Your task to perform on an android device: remove spam from my inbox in the gmail app Image 0: 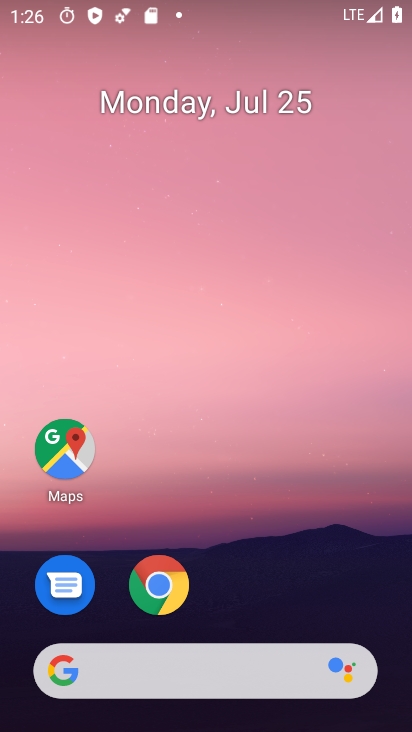
Step 0: drag from (205, 652) to (296, 6)
Your task to perform on an android device: remove spam from my inbox in the gmail app Image 1: 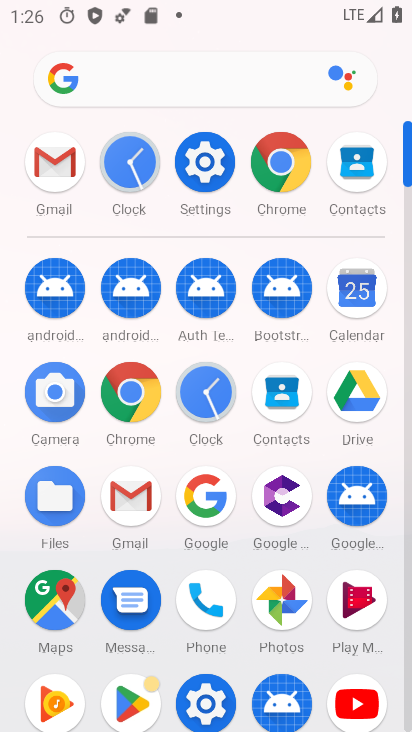
Step 1: click (149, 524)
Your task to perform on an android device: remove spam from my inbox in the gmail app Image 2: 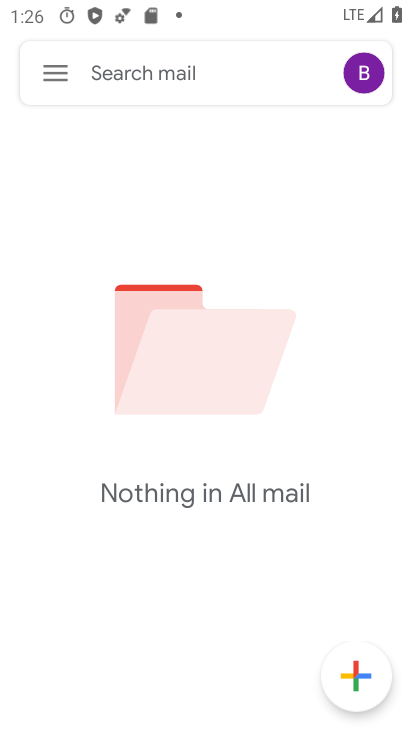
Step 2: click (59, 74)
Your task to perform on an android device: remove spam from my inbox in the gmail app Image 3: 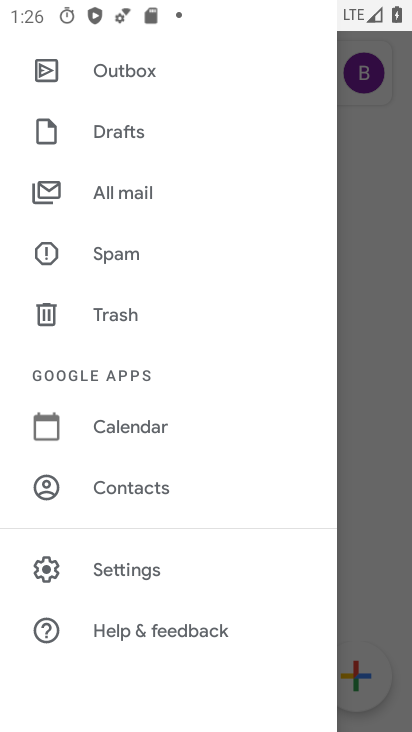
Step 3: click (140, 239)
Your task to perform on an android device: remove spam from my inbox in the gmail app Image 4: 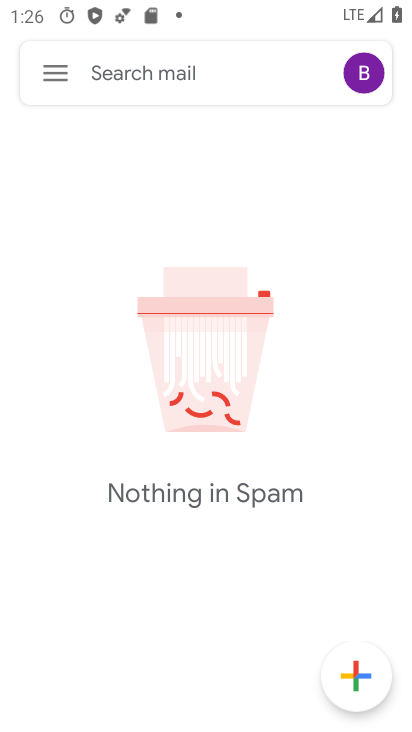
Step 4: task complete